Your task to perform on an android device: turn on notifications settings in the gmail app Image 0: 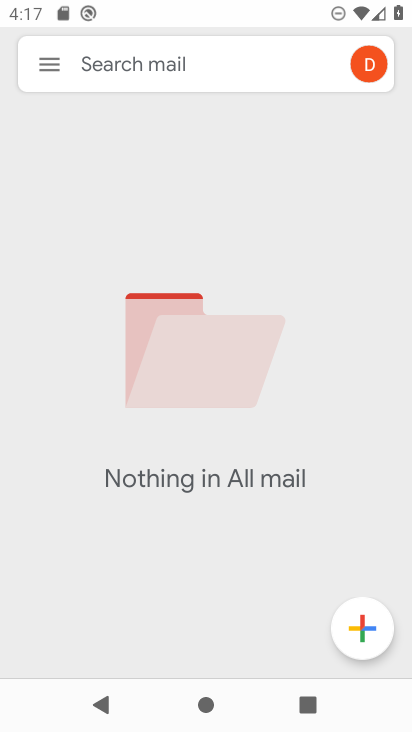
Step 0: press home button
Your task to perform on an android device: turn on notifications settings in the gmail app Image 1: 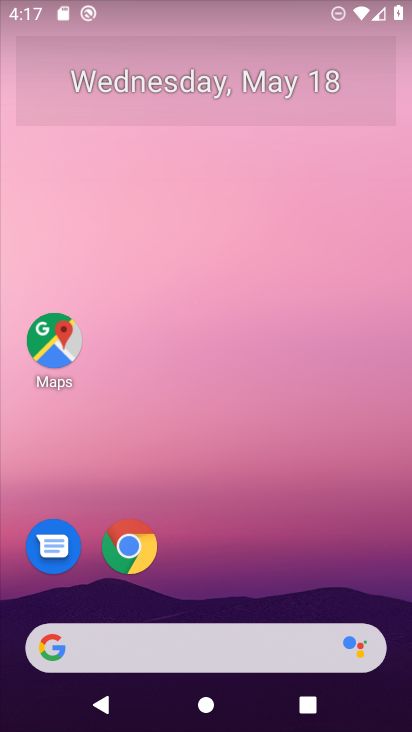
Step 1: drag from (196, 576) to (230, 218)
Your task to perform on an android device: turn on notifications settings in the gmail app Image 2: 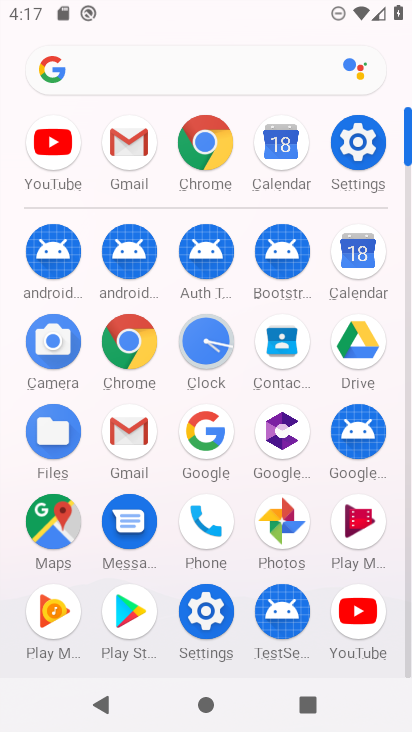
Step 2: click (131, 446)
Your task to perform on an android device: turn on notifications settings in the gmail app Image 3: 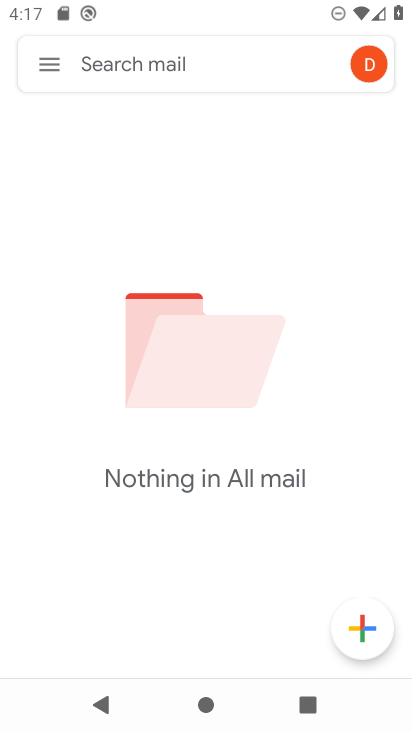
Step 3: click (33, 68)
Your task to perform on an android device: turn on notifications settings in the gmail app Image 4: 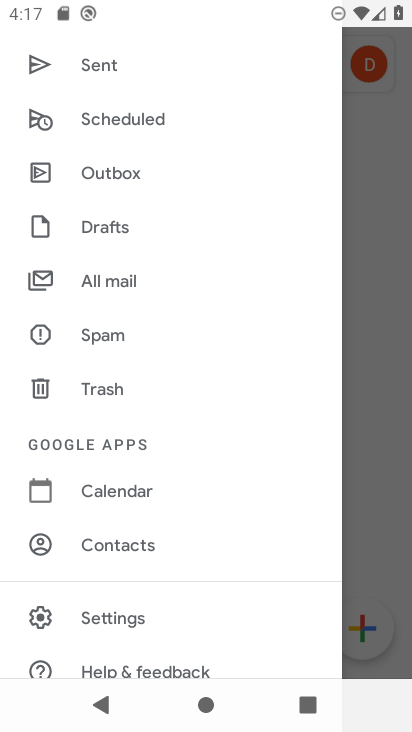
Step 4: click (98, 625)
Your task to perform on an android device: turn on notifications settings in the gmail app Image 5: 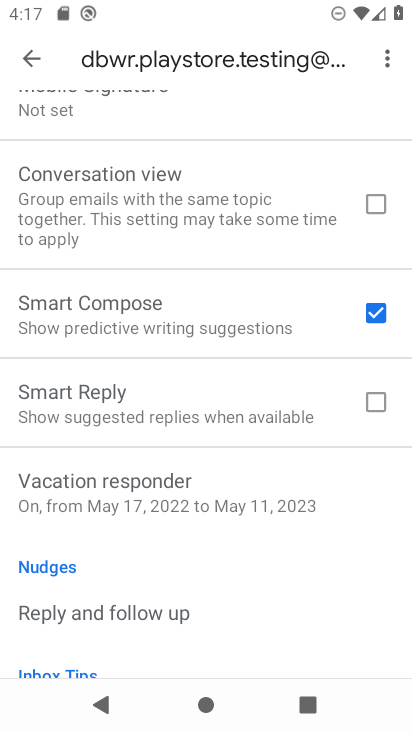
Step 5: click (37, 60)
Your task to perform on an android device: turn on notifications settings in the gmail app Image 6: 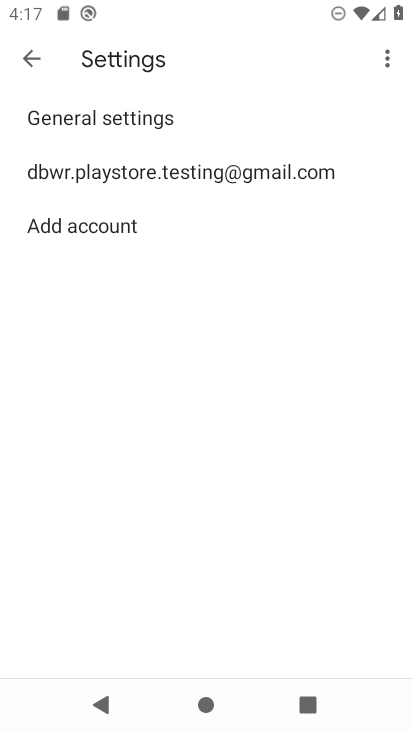
Step 6: click (78, 124)
Your task to perform on an android device: turn on notifications settings in the gmail app Image 7: 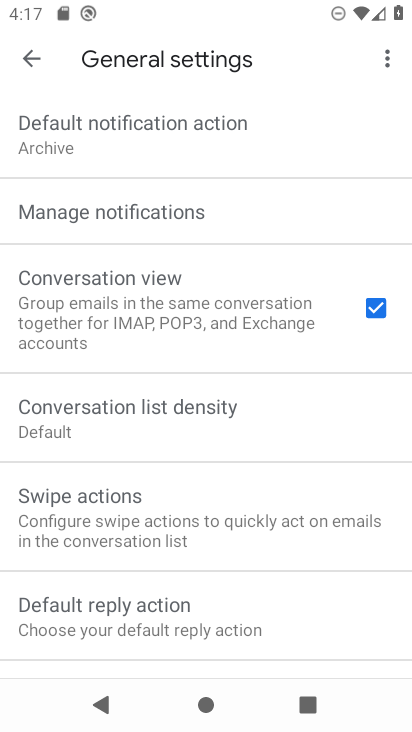
Step 7: click (171, 220)
Your task to perform on an android device: turn on notifications settings in the gmail app Image 8: 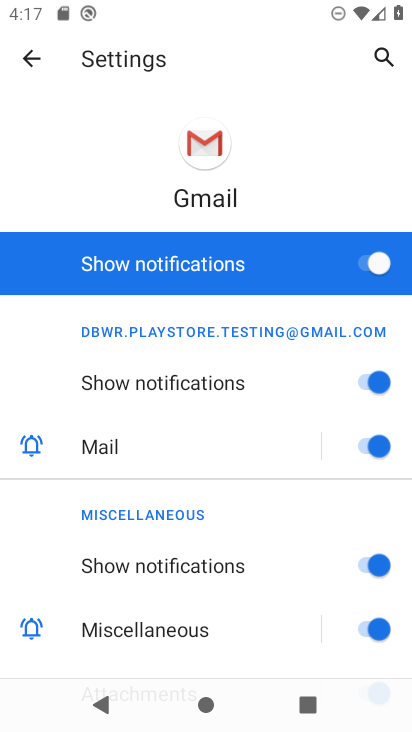
Step 8: task complete